Your task to perform on an android device: Go to settings Image 0: 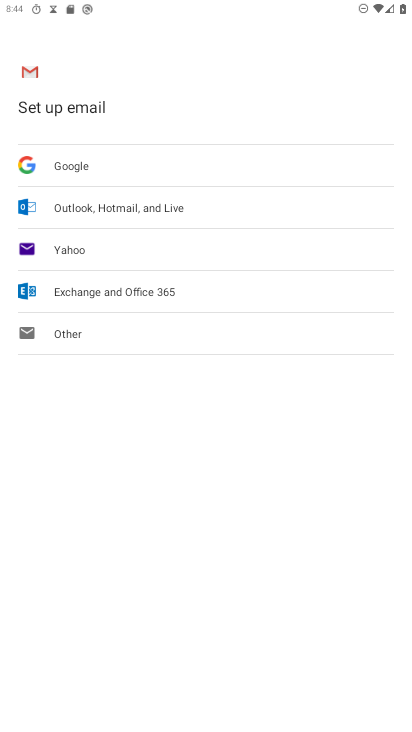
Step 0: press home button
Your task to perform on an android device: Go to settings Image 1: 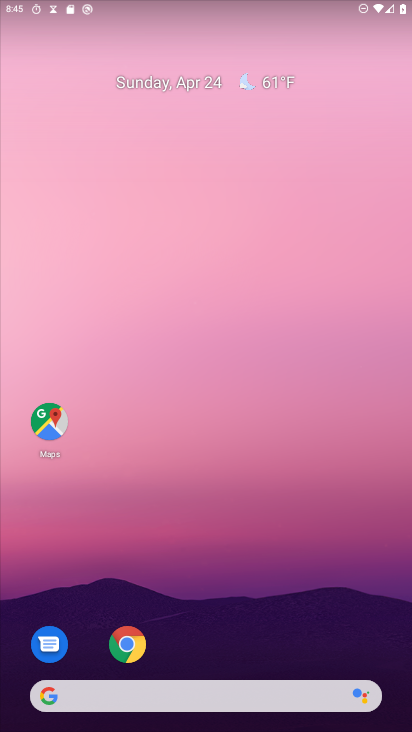
Step 1: drag from (240, 690) to (296, 290)
Your task to perform on an android device: Go to settings Image 2: 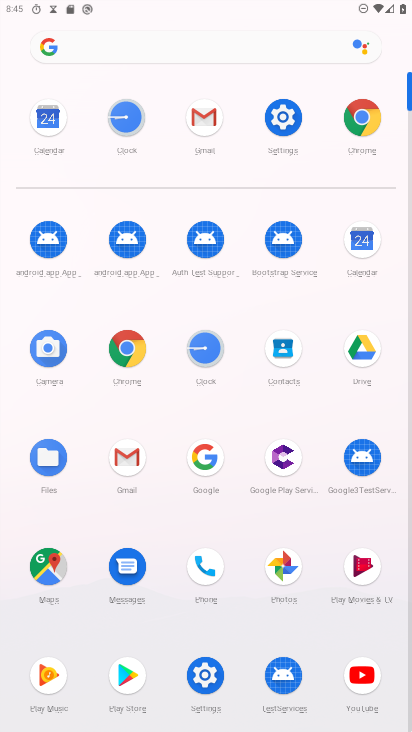
Step 2: click (202, 686)
Your task to perform on an android device: Go to settings Image 3: 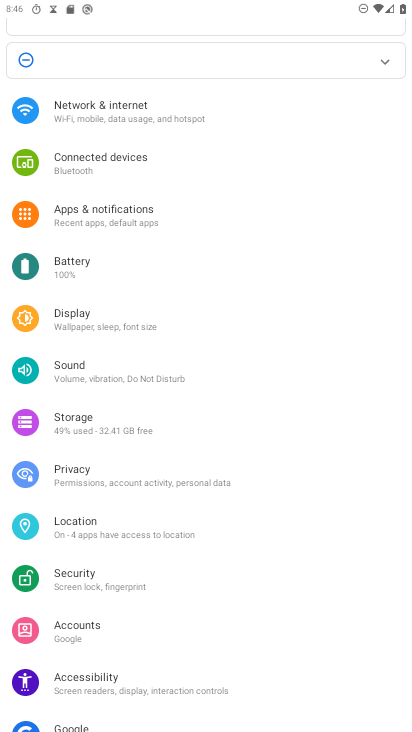
Step 3: task complete